Your task to perform on an android device: turn off location history Image 0: 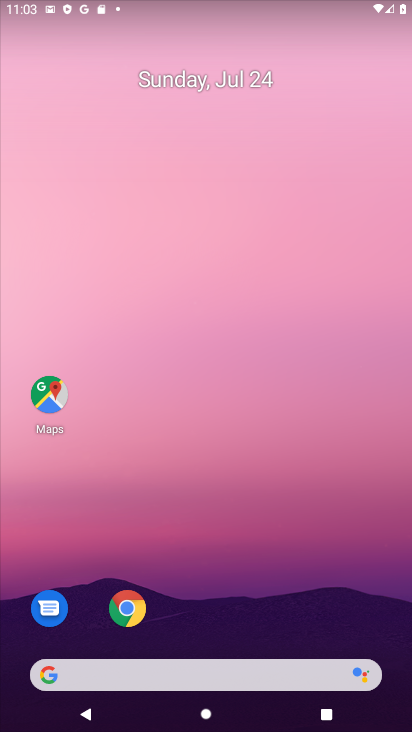
Step 0: drag from (199, 29) to (1, 69)
Your task to perform on an android device: turn off location history Image 1: 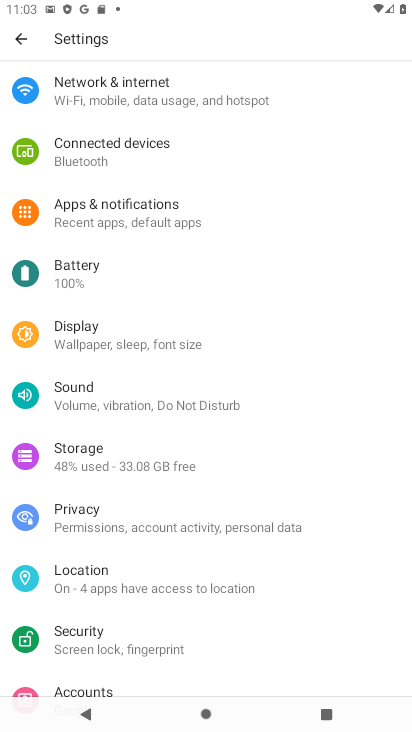
Step 1: click (96, 578)
Your task to perform on an android device: turn off location history Image 2: 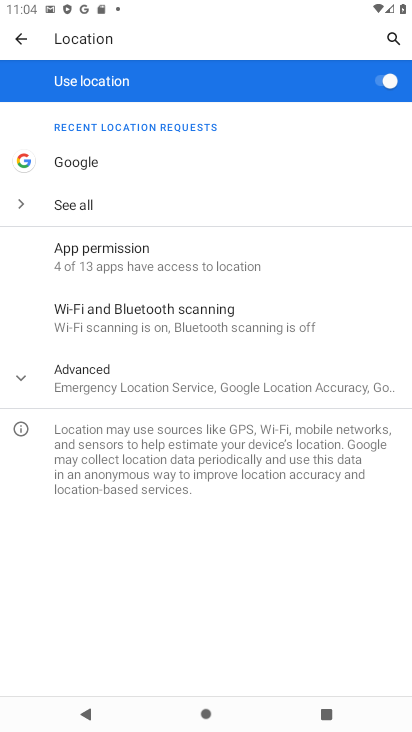
Step 2: click (101, 385)
Your task to perform on an android device: turn off location history Image 3: 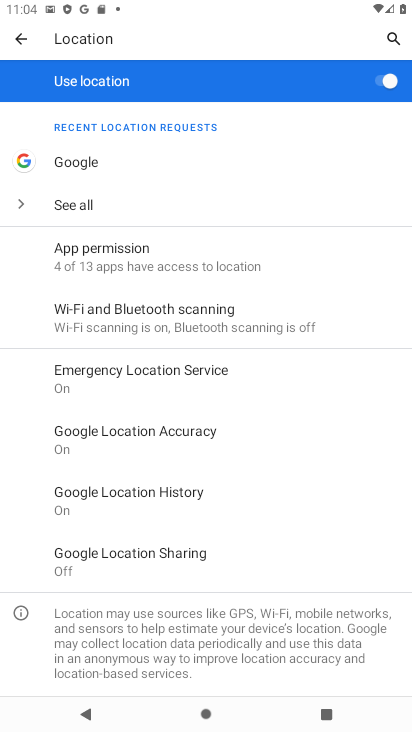
Step 3: click (169, 488)
Your task to perform on an android device: turn off location history Image 4: 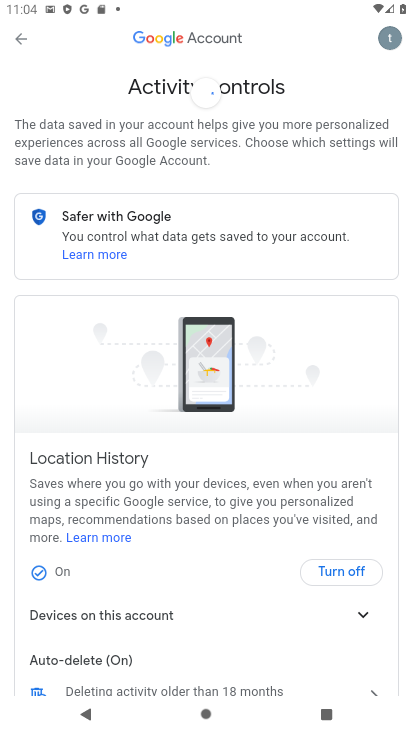
Step 4: click (350, 571)
Your task to perform on an android device: turn off location history Image 5: 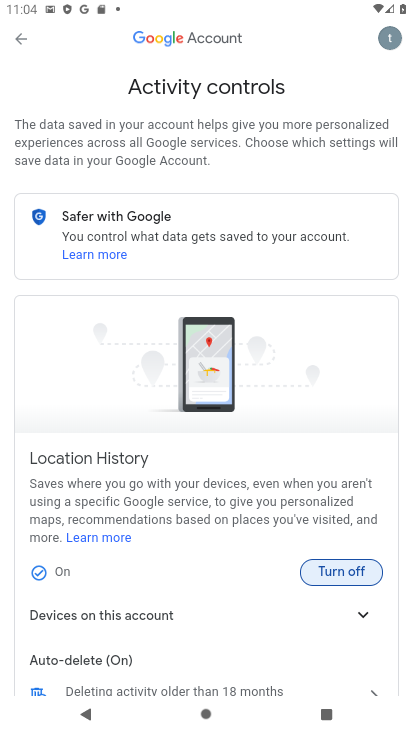
Step 5: click (344, 564)
Your task to perform on an android device: turn off location history Image 6: 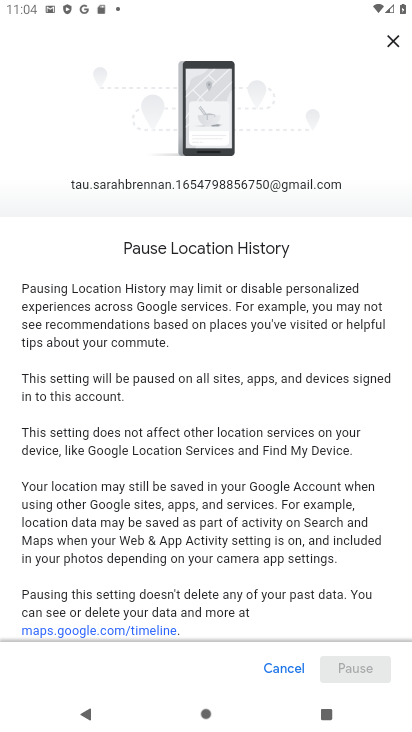
Step 6: drag from (294, 570) to (136, 3)
Your task to perform on an android device: turn off location history Image 7: 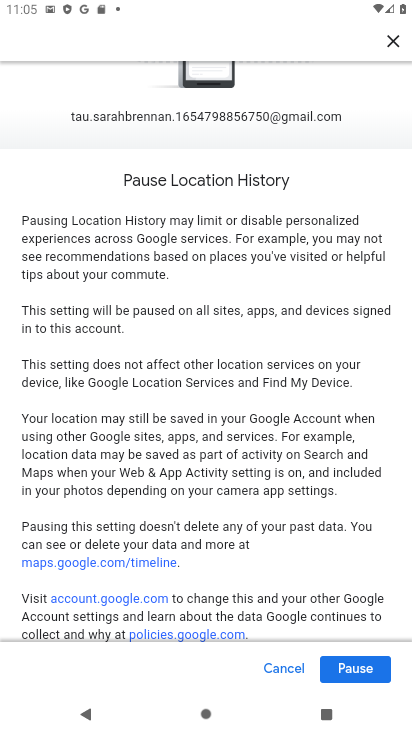
Step 7: drag from (281, 587) to (167, 0)
Your task to perform on an android device: turn off location history Image 8: 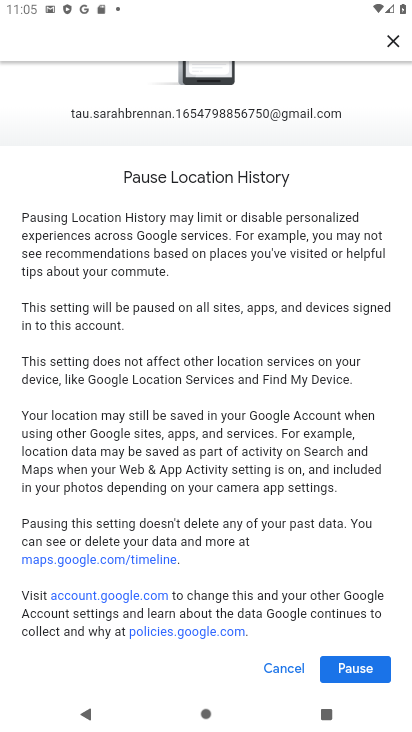
Step 8: click (373, 676)
Your task to perform on an android device: turn off location history Image 9: 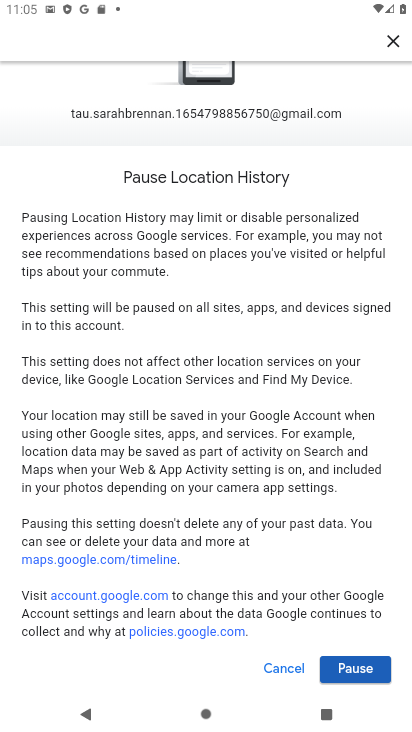
Step 9: click (368, 665)
Your task to perform on an android device: turn off location history Image 10: 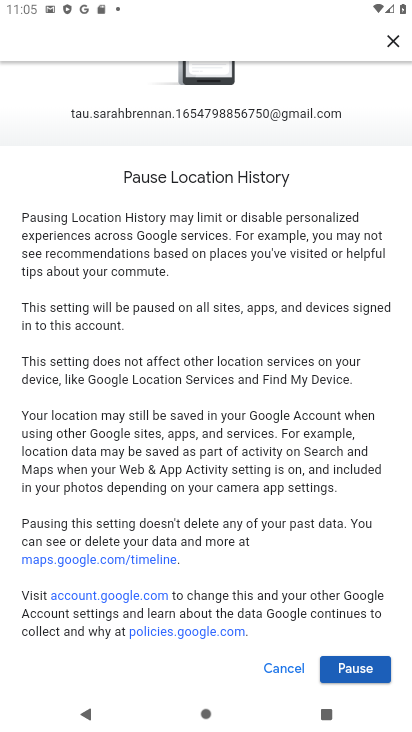
Step 10: click (336, 673)
Your task to perform on an android device: turn off location history Image 11: 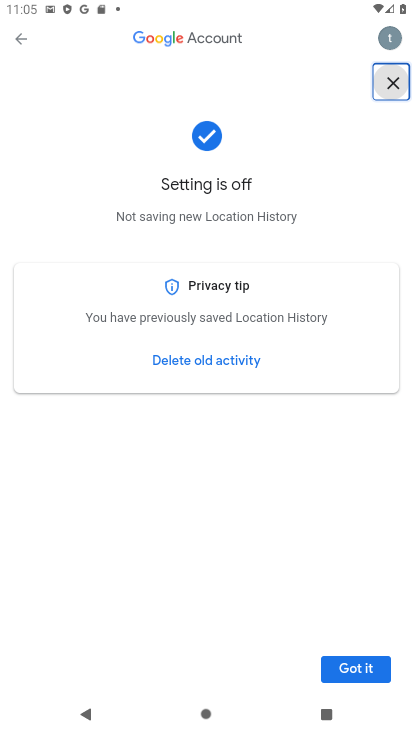
Step 11: click (359, 664)
Your task to perform on an android device: turn off location history Image 12: 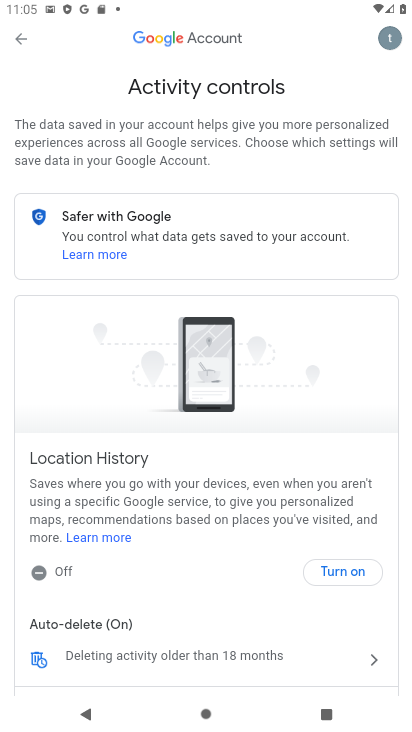
Step 12: task complete